Your task to perform on an android device: What's the weather? Image 0: 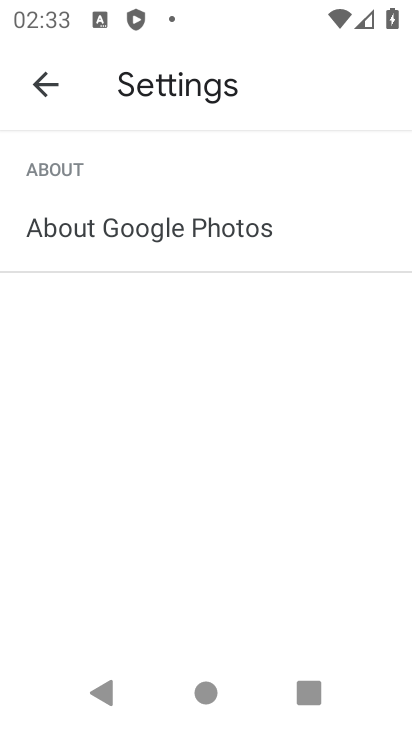
Step 0: press home button
Your task to perform on an android device: What's the weather? Image 1: 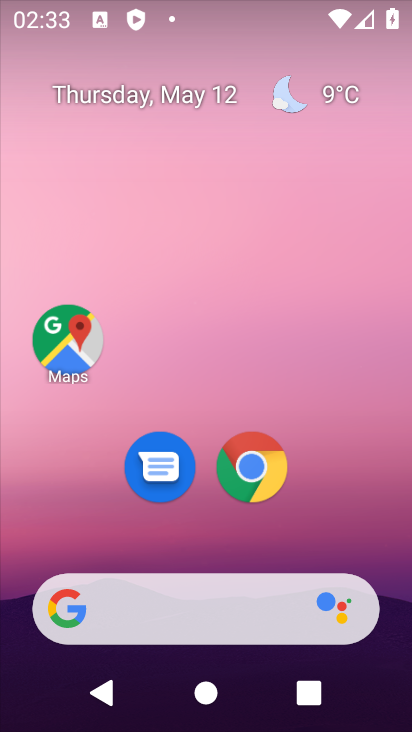
Step 1: drag from (263, 536) to (275, 177)
Your task to perform on an android device: What's the weather? Image 2: 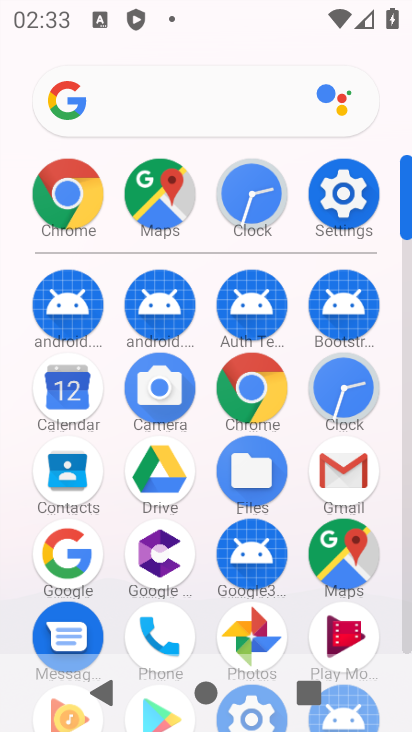
Step 2: click (63, 187)
Your task to perform on an android device: What's the weather? Image 3: 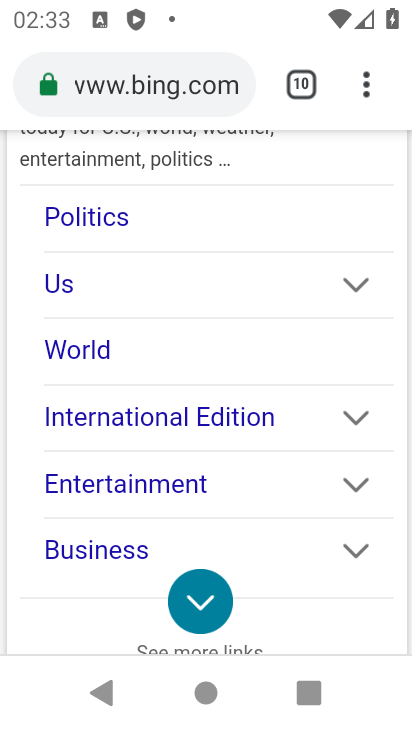
Step 3: click (343, 90)
Your task to perform on an android device: What's the weather? Image 4: 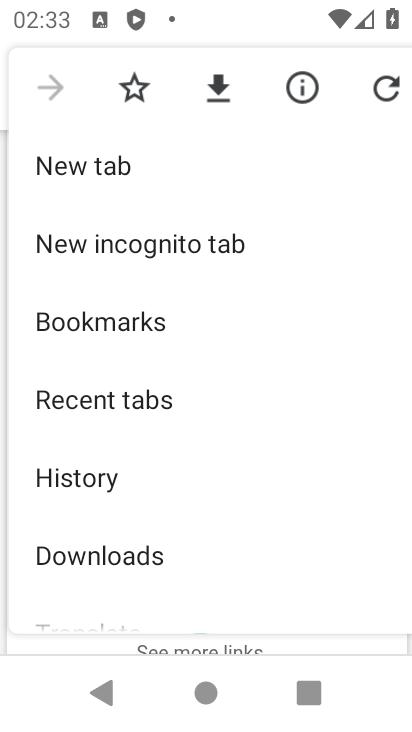
Step 4: click (69, 168)
Your task to perform on an android device: What's the weather? Image 5: 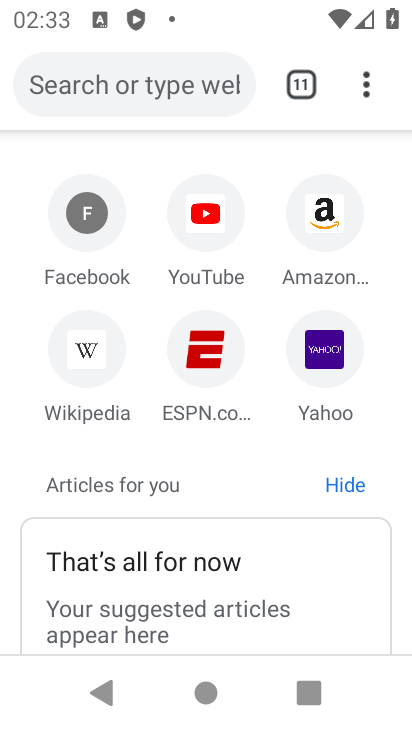
Step 5: click (120, 63)
Your task to perform on an android device: What's the weather? Image 6: 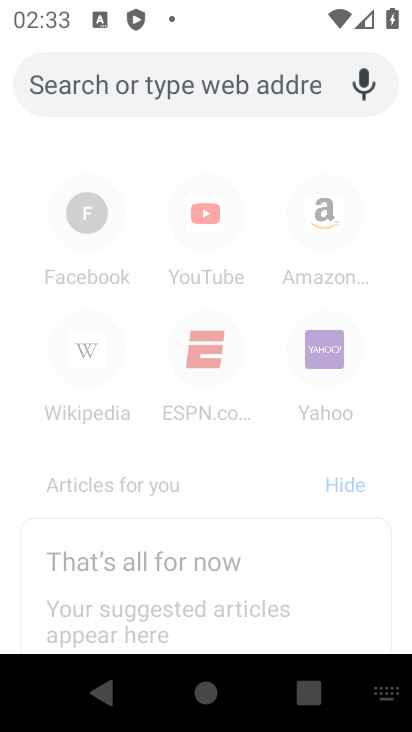
Step 6: type "What's the weather?"
Your task to perform on an android device: What's the weather? Image 7: 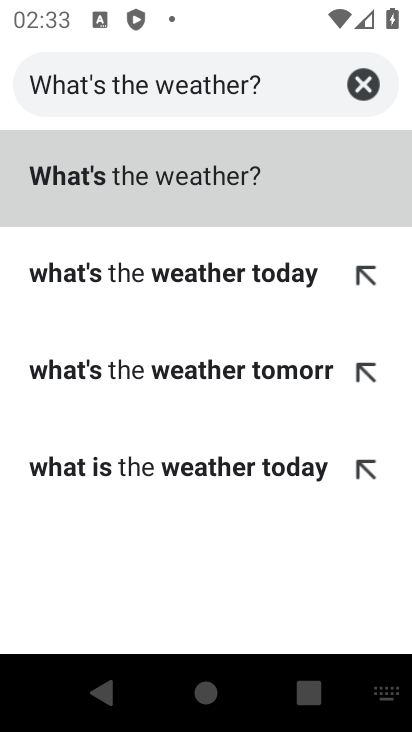
Step 7: click (102, 182)
Your task to perform on an android device: What's the weather? Image 8: 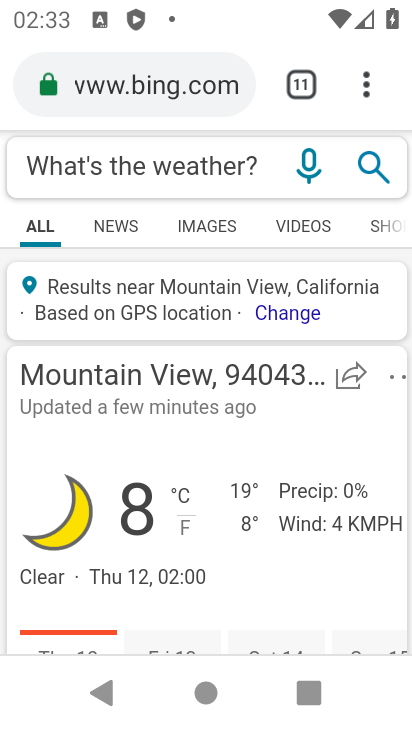
Step 8: task complete